Your task to perform on an android device: clear all cookies in the chrome app Image 0: 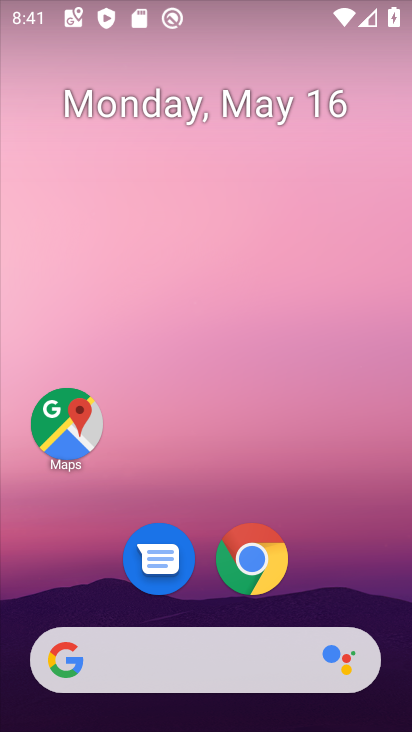
Step 0: click (249, 558)
Your task to perform on an android device: clear all cookies in the chrome app Image 1: 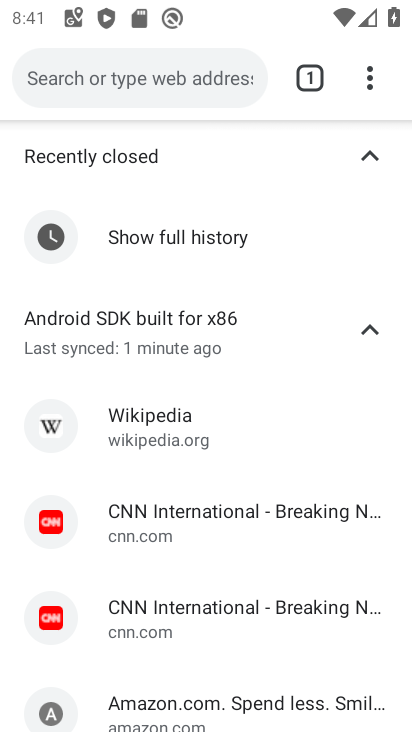
Step 1: click (361, 75)
Your task to perform on an android device: clear all cookies in the chrome app Image 2: 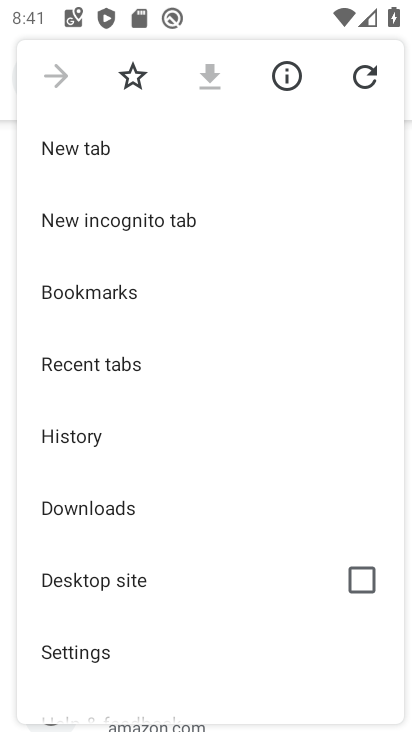
Step 2: click (140, 433)
Your task to perform on an android device: clear all cookies in the chrome app Image 3: 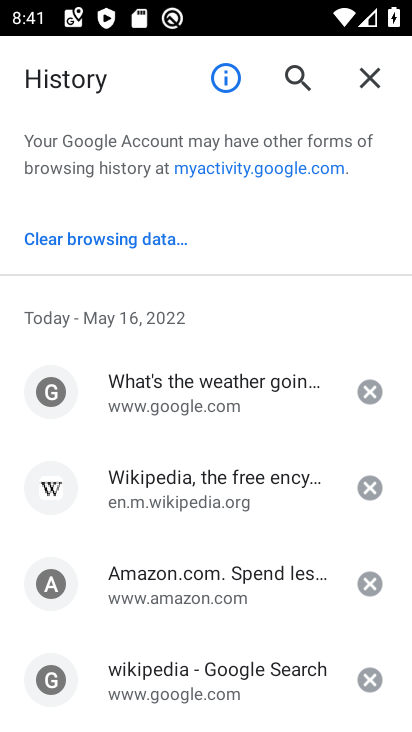
Step 3: click (62, 250)
Your task to perform on an android device: clear all cookies in the chrome app Image 4: 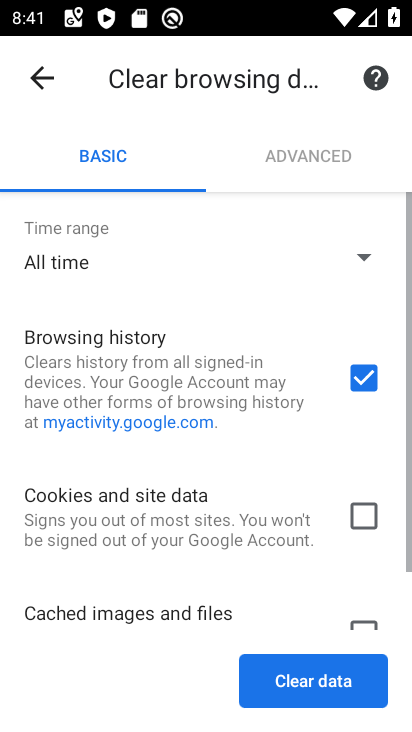
Step 4: click (299, 491)
Your task to perform on an android device: clear all cookies in the chrome app Image 5: 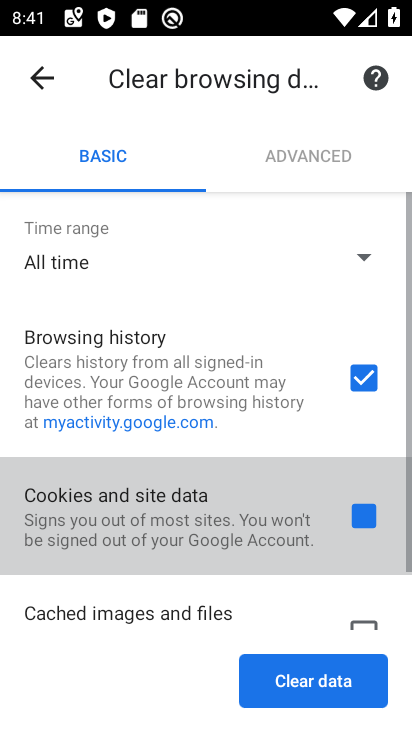
Step 5: click (288, 370)
Your task to perform on an android device: clear all cookies in the chrome app Image 6: 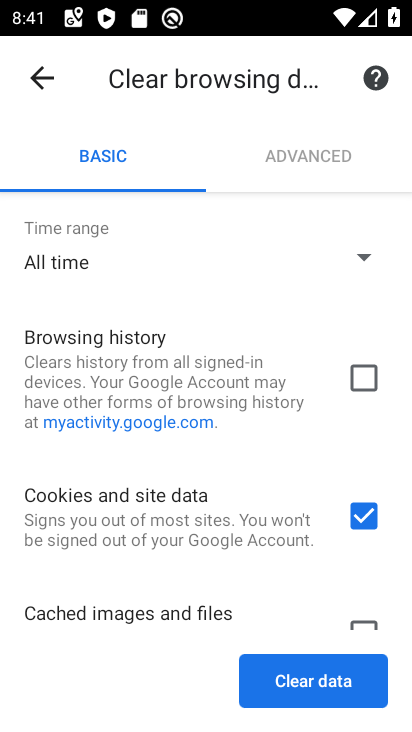
Step 6: click (320, 667)
Your task to perform on an android device: clear all cookies in the chrome app Image 7: 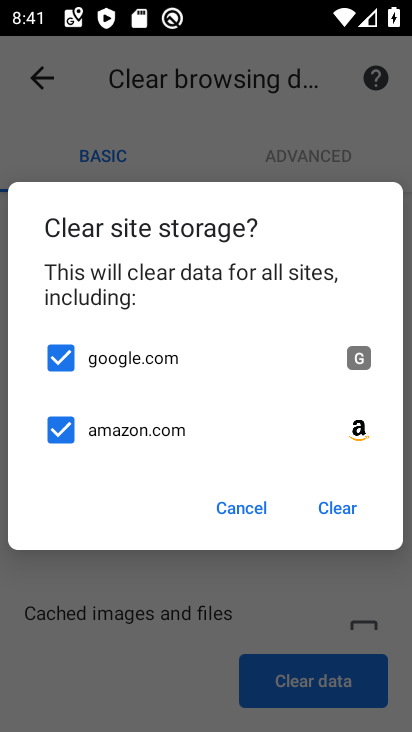
Step 7: click (328, 510)
Your task to perform on an android device: clear all cookies in the chrome app Image 8: 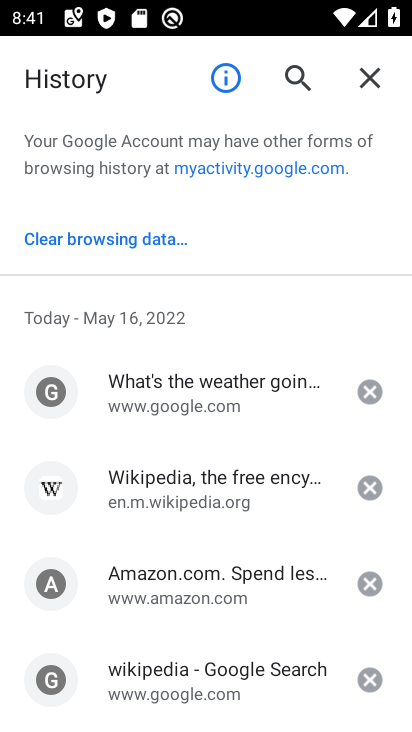
Step 8: task complete